Your task to perform on an android device: refresh tabs in the chrome app Image 0: 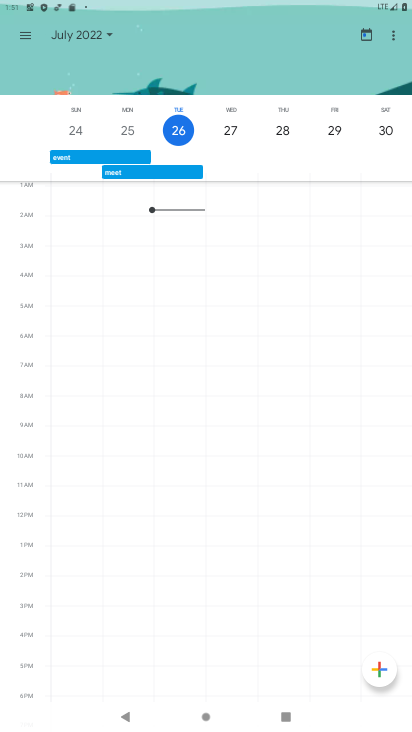
Step 0: press home button
Your task to perform on an android device: refresh tabs in the chrome app Image 1: 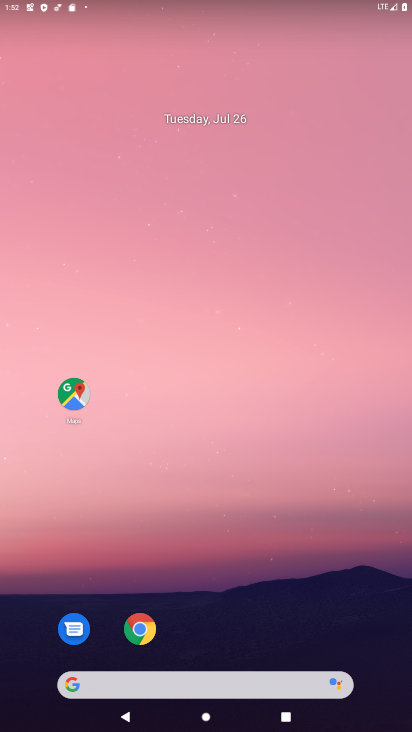
Step 1: click (149, 624)
Your task to perform on an android device: refresh tabs in the chrome app Image 2: 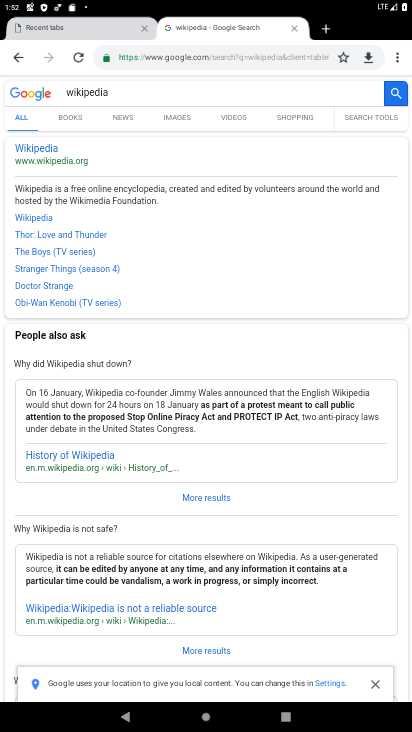
Step 2: click (79, 59)
Your task to perform on an android device: refresh tabs in the chrome app Image 3: 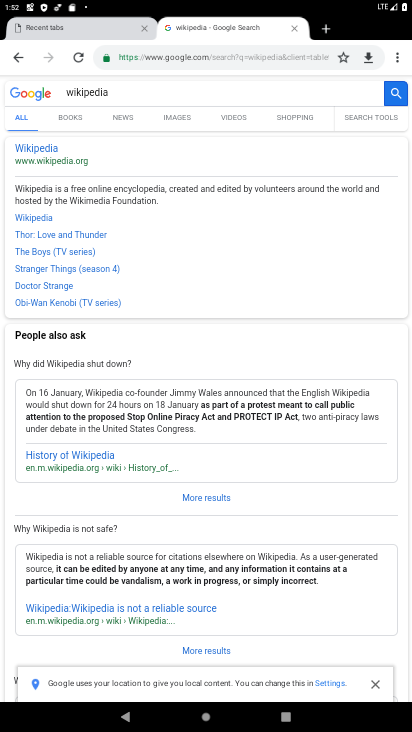
Step 3: task complete